Your task to perform on an android device: turn smart compose on in the gmail app Image 0: 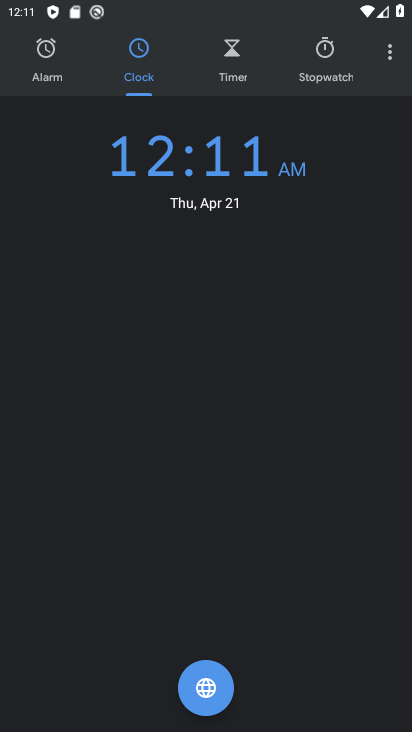
Step 0: press home button
Your task to perform on an android device: turn smart compose on in the gmail app Image 1: 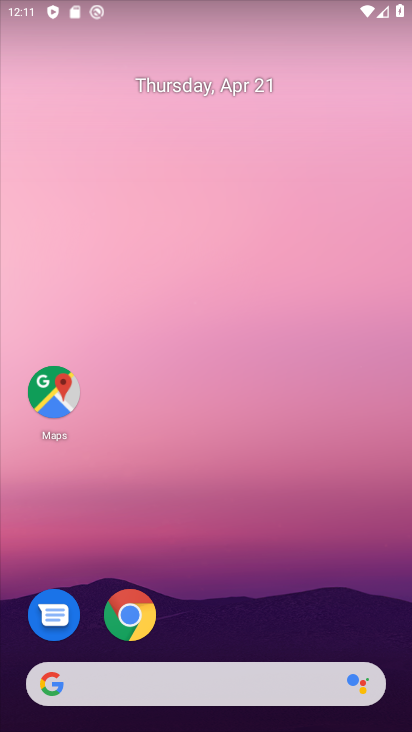
Step 1: drag from (212, 566) to (245, 11)
Your task to perform on an android device: turn smart compose on in the gmail app Image 2: 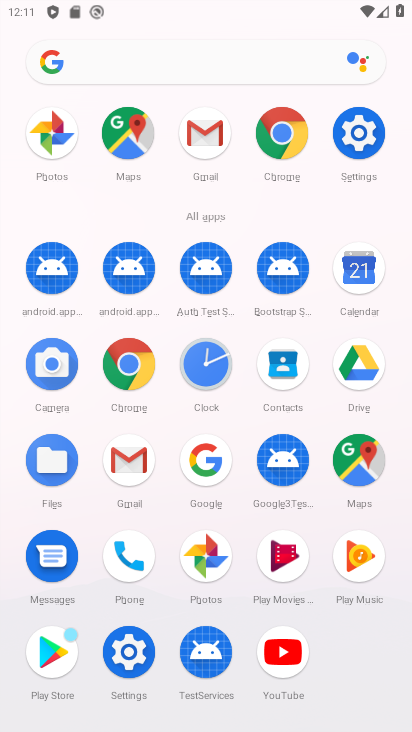
Step 2: click (202, 149)
Your task to perform on an android device: turn smart compose on in the gmail app Image 3: 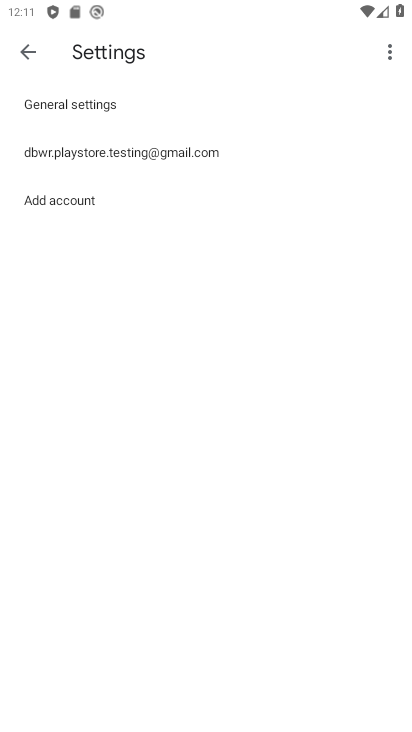
Step 3: click (89, 148)
Your task to perform on an android device: turn smart compose on in the gmail app Image 4: 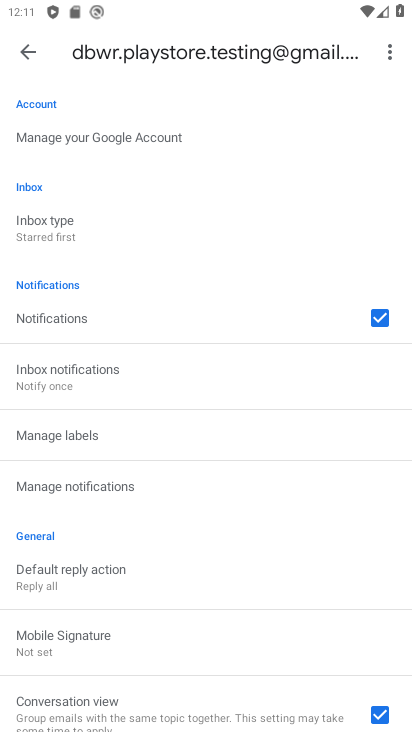
Step 4: task complete